Your task to perform on an android device: check out phone information Image 0: 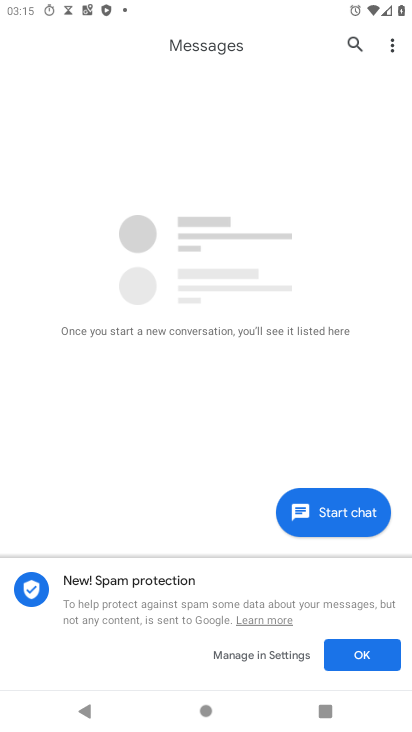
Step 0: press home button
Your task to perform on an android device: check out phone information Image 1: 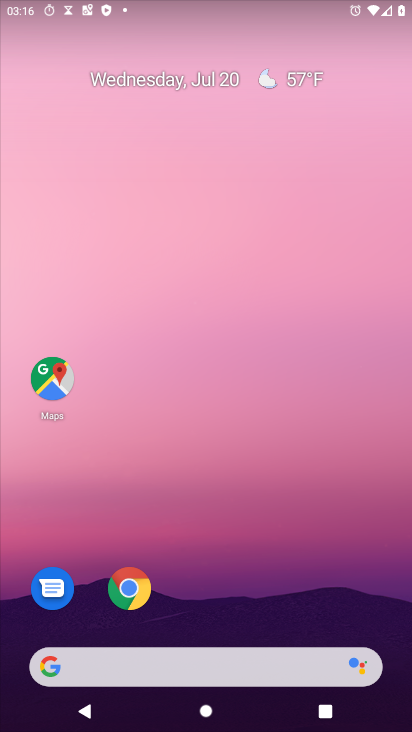
Step 1: drag from (302, 639) to (177, 0)
Your task to perform on an android device: check out phone information Image 2: 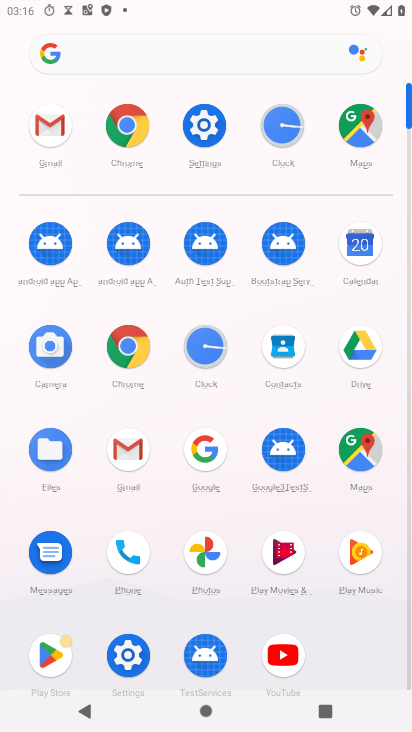
Step 2: click (209, 120)
Your task to perform on an android device: check out phone information Image 3: 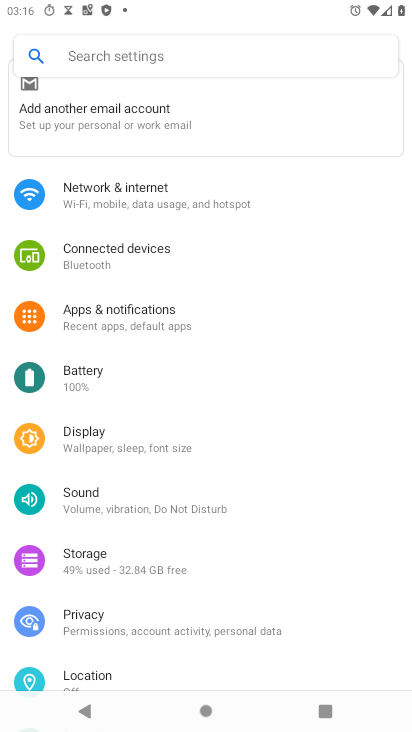
Step 3: drag from (252, 643) to (255, 90)
Your task to perform on an android device: check out phone information Image 4: 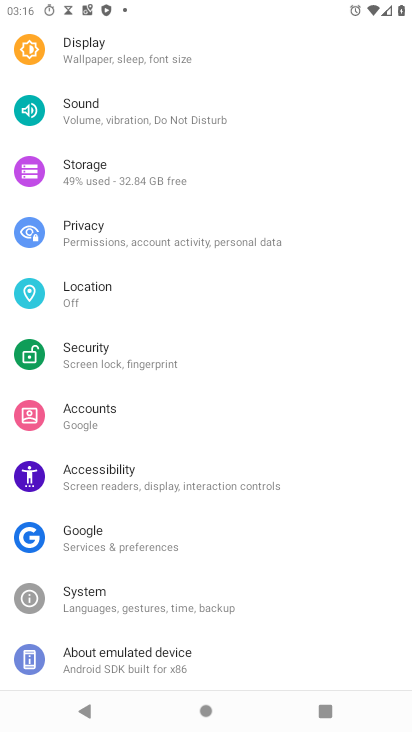
Step 4: click (217, 661)
Your task to perform on an android device: check out phone information Image 5: 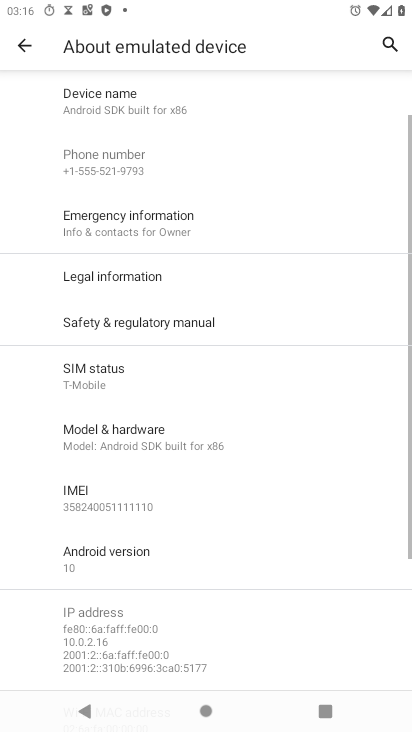
Step 5: task complete